Your task to perform on an android device: set the stopwatch Image 0: 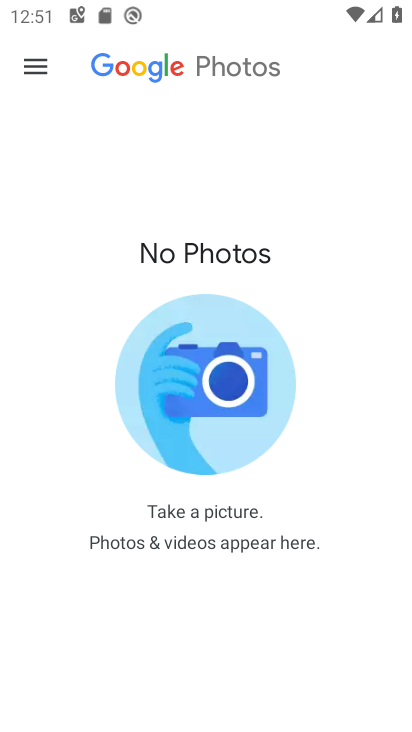
Step 0: press home button
Your task to perform on an android device: set the stopwatch Image 1: 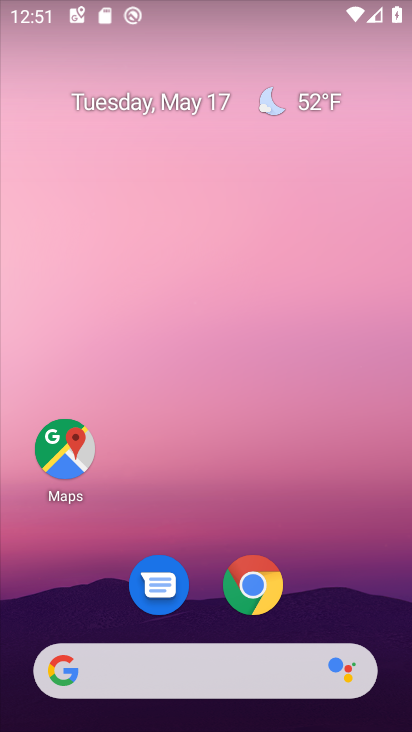
Step 1: drag from (313, 585) to (335, 76)
Your task to perform on an android device: set the stopwatch Image 2: 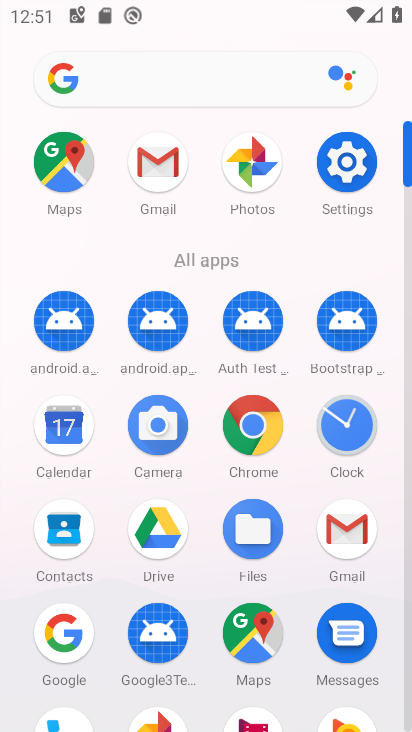
Step 2: click (341, 423)
Your task to perform on an android device: set the stopwatch Image 3: 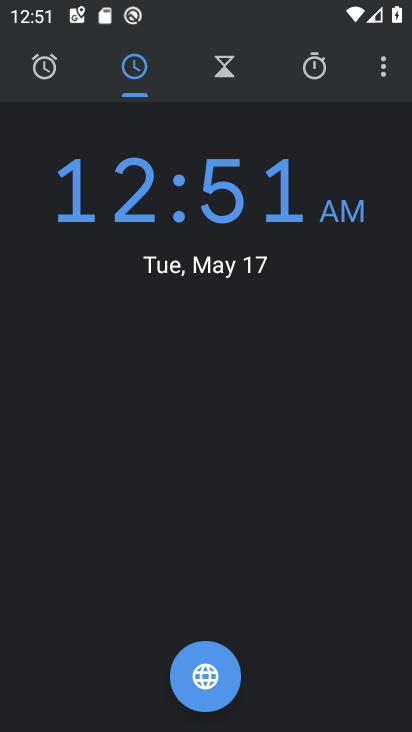
Step 3: click (317, 72)
Your task to perform on an android device: set the stopwatch Image 4: 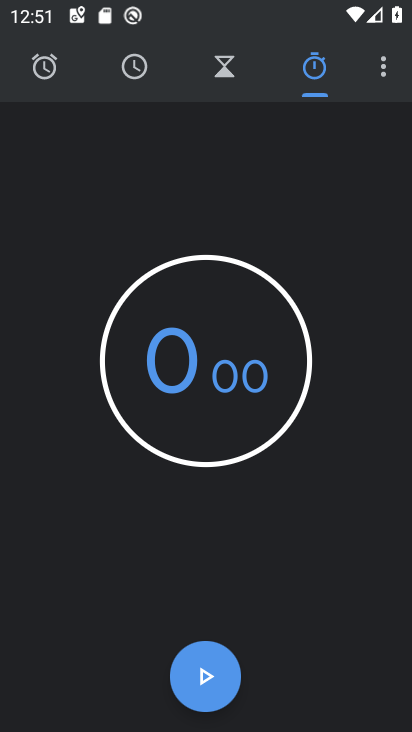
Step 4: task complete